Your task to perform on an android device: Go to Google Image 0: 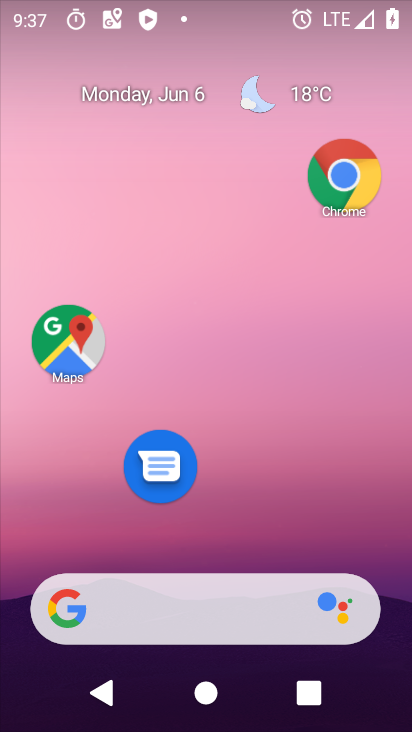
Step 0: drag from (182, 536) to (224, 82)
Your task to perform on an android device: Go to Google Image 1: 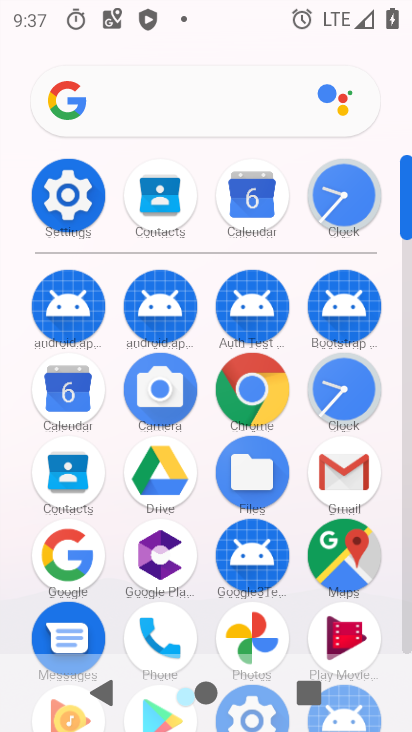
Step 1: click (74, 566)
Your task to perform on an android device: Go to Google Image 2: 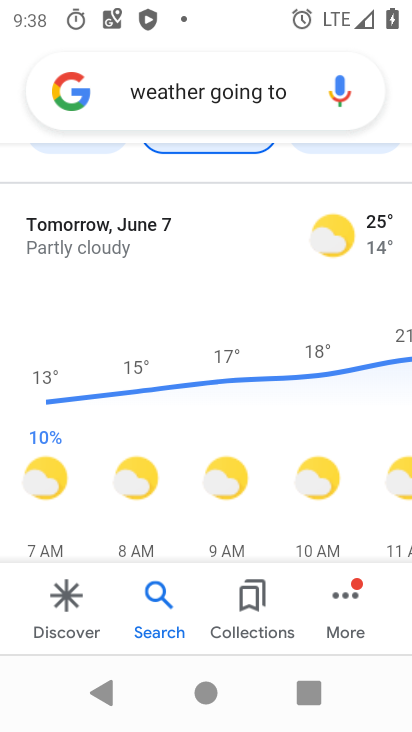
Step 2: task complete